Your task to perform on an android device: Do I have any events this weekend? Image 0: 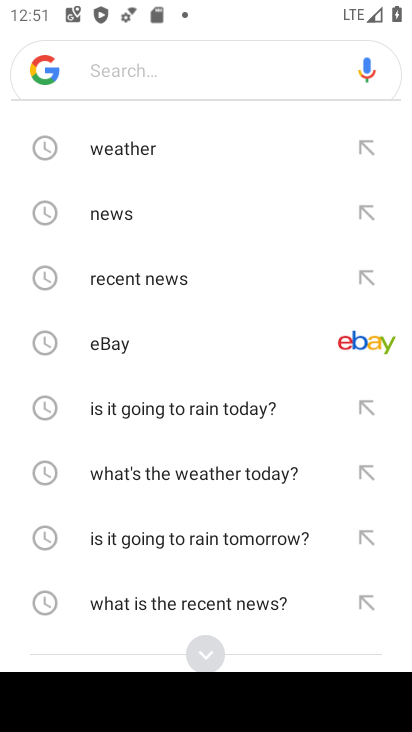
Step 0: press home button
Your task to perform on an android device: Do I have any events this weekend? Image 1: 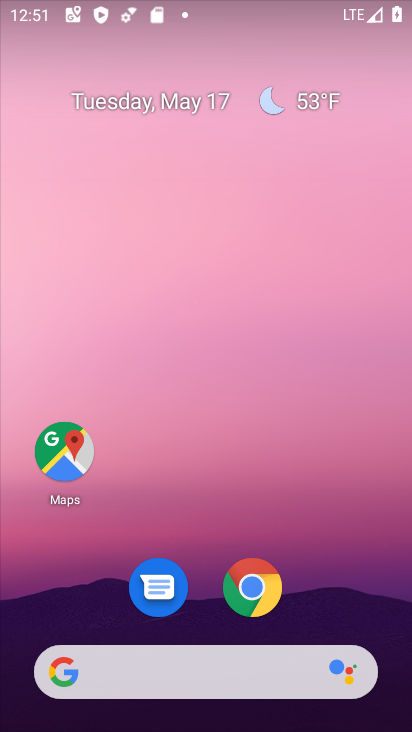
Step 1: drag from (224, 644) to (208, 99)
Your task to perform on an android device: Do I have any events this weekend? Image 2: 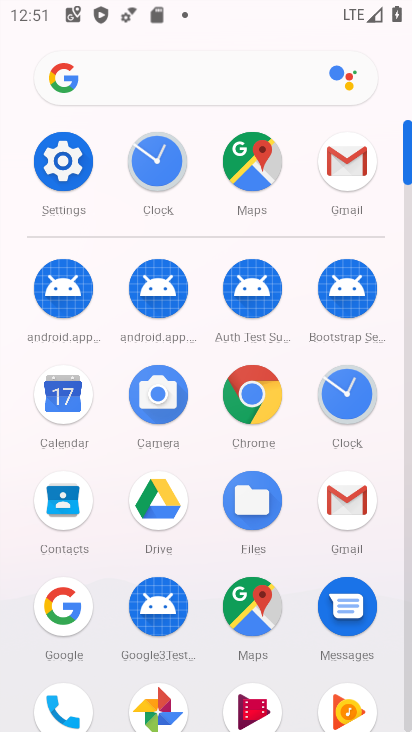
Step 2: click (67, 394)
Your task to perform on an android device: Do I have any events this weekend? Image 3: 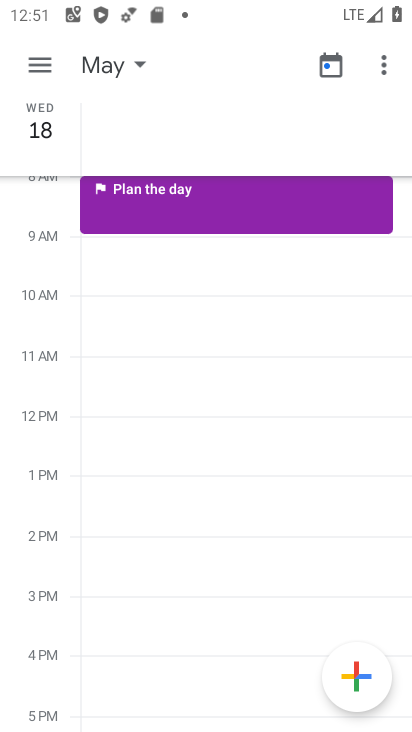
Step 3: click (38, 70)
Your task to perform on an android device: Do I have any events this weekend? Image 4: 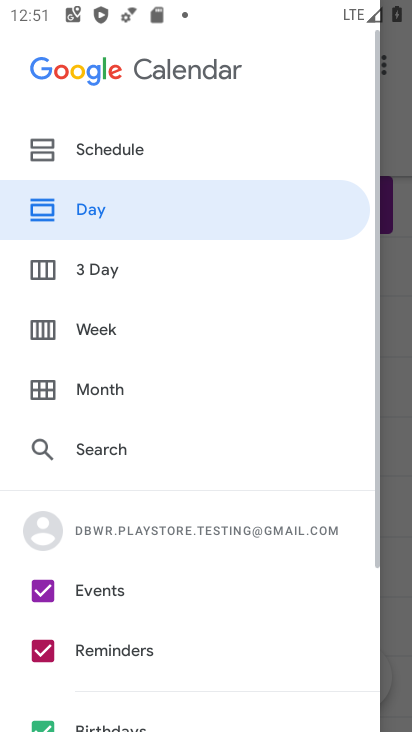
Step 4: click (99, 335)
Your task to perform on an android device: Do I have any events this weekend? Image 5: 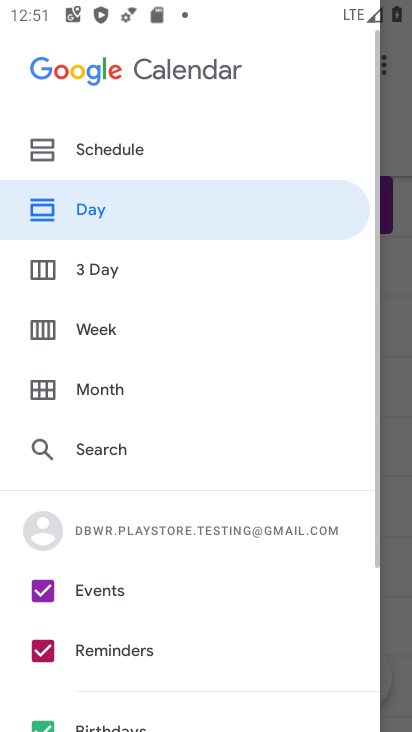
Step 5: click (115, 324)
Your task to perform on an android device: Do I have any events this weekend? Image 6: 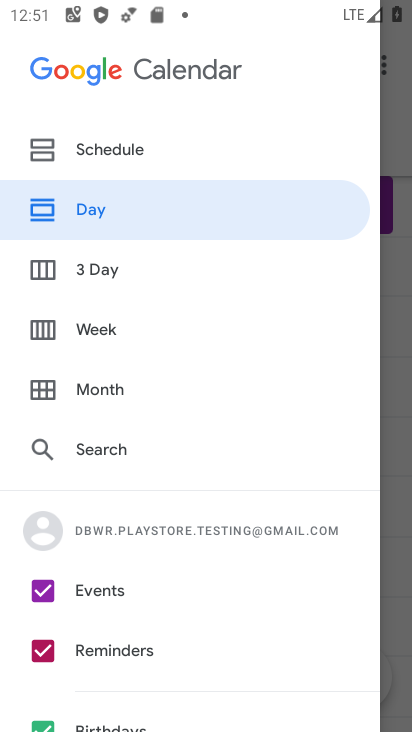
Step 6: click (100, 323)
Your task to perform on an android device: Do I have any events this weekend? Image 7: 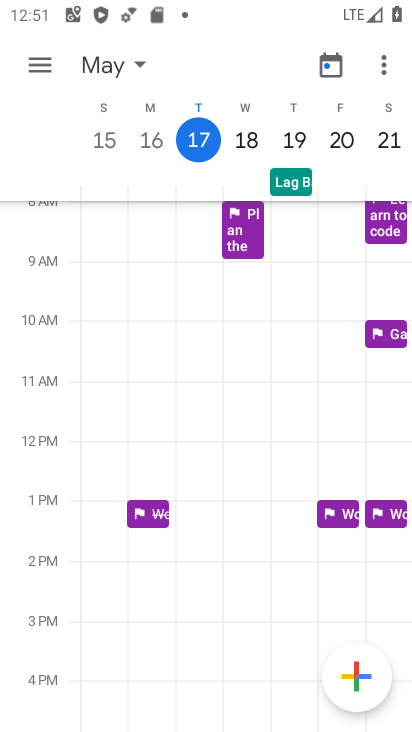
Step 7: task complete